Your task to perform on an android device: Do I have any events tomorrow? Image 0: 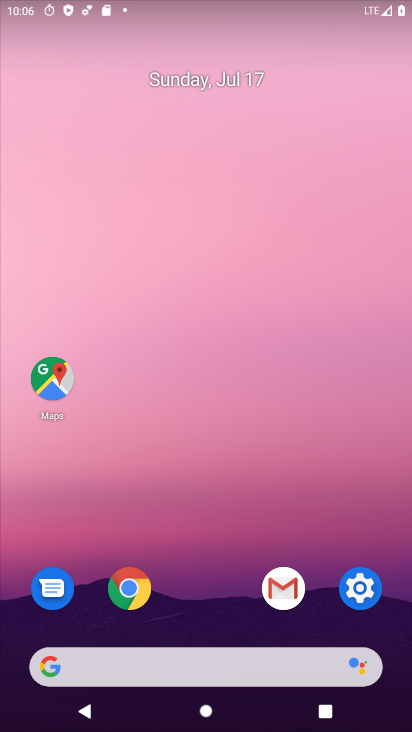
Step 0: drag from (295, 680) to (154, 191)
Your task to perform on an android device: Do I have any events tomorrow? Image 1: 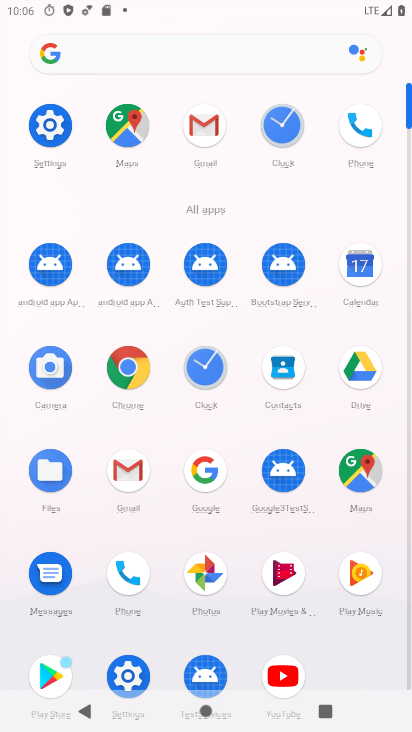
Step 1: click (355, 269)
Your task to perform on an android device: Do I have any events tomorrow? Image 2: 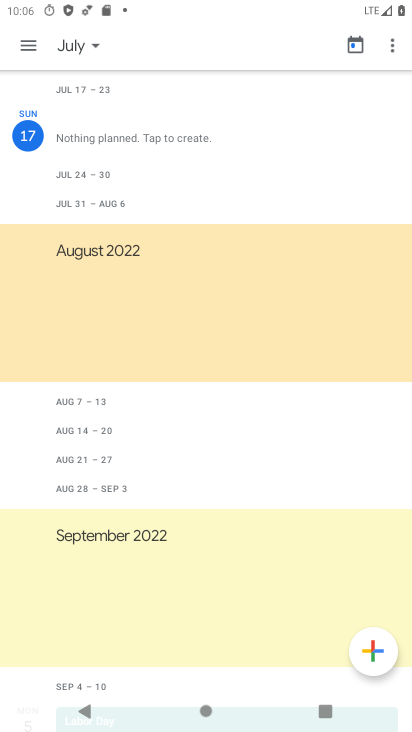
Step 2: click (23, 55)
Your task to perform on an android device: Do I have any events tomorrow? Image 3: 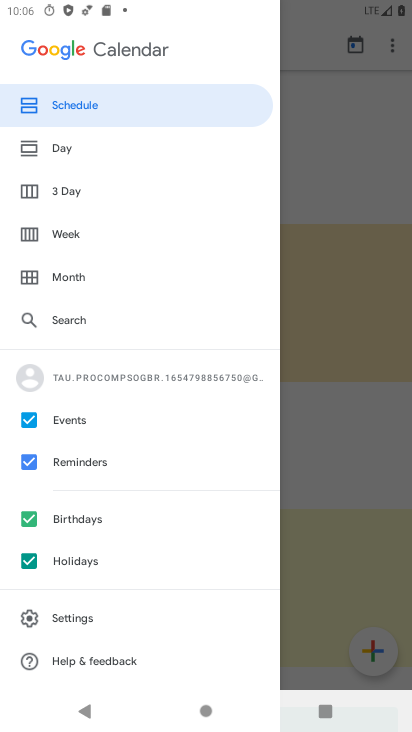
Step 3: click (116, 282)
Your task to perform on an android device: Do I have any events tomorrow? Image 4: 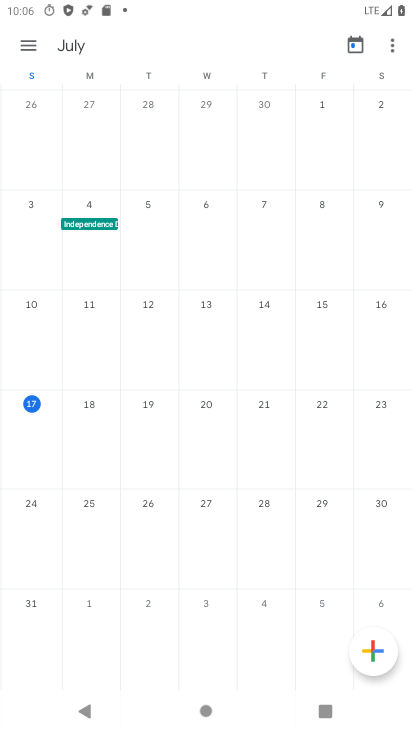
Step 4: click (100, 412)
Your task to perform on an android device: Do I have any events tomorrow? Image 5: 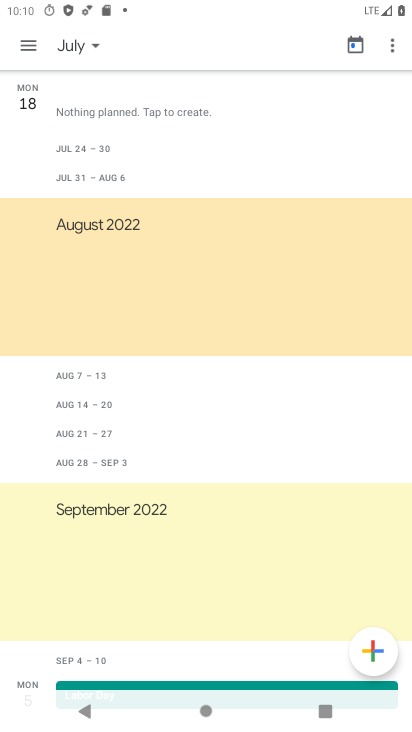
Step 5: task complete